Your task to perform on an android device: find photos in the google photos app Image 0: 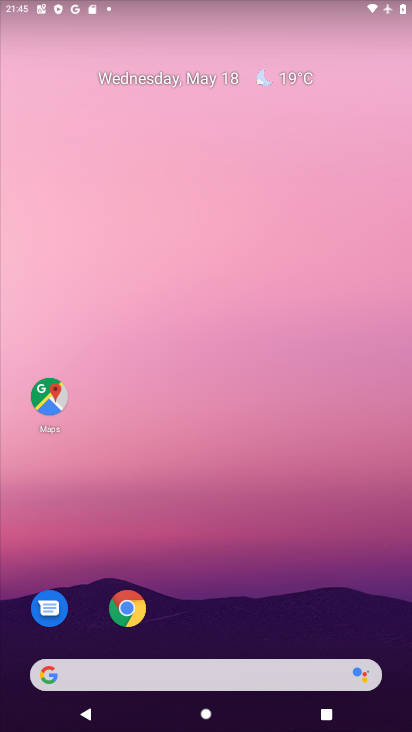
Step 0: drag from (303, 611) to (272, 129)
Your task to perform on an android device: find photos in the google photos app Image 1: 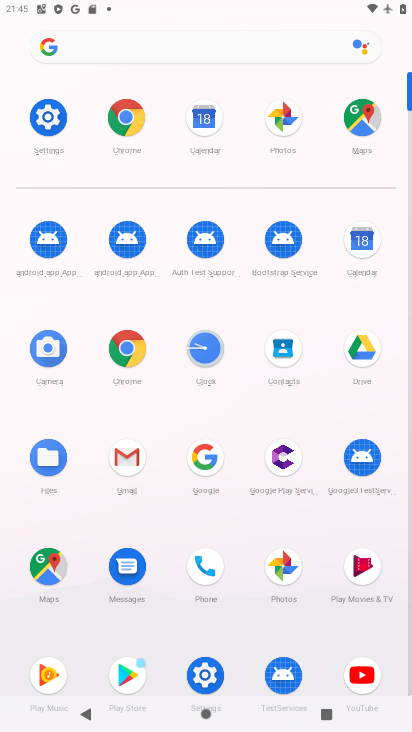
Step 1: click (286, 128)
Your task to perform on an android device: find photos in the google photos app Image 2: 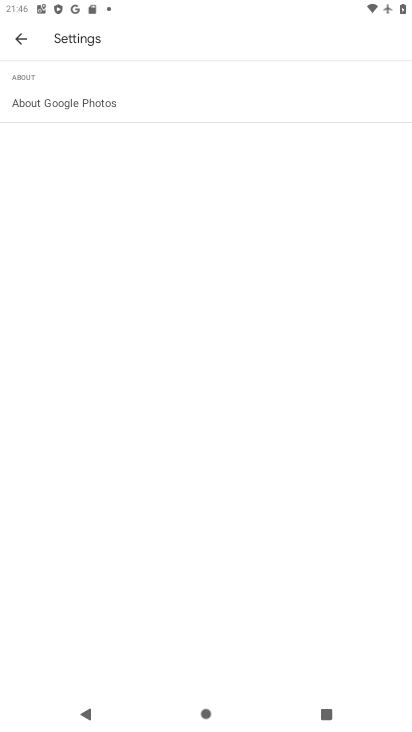
Step 2: press home button
Your task to perform on an android device: find photos in the google photos app Image 3: 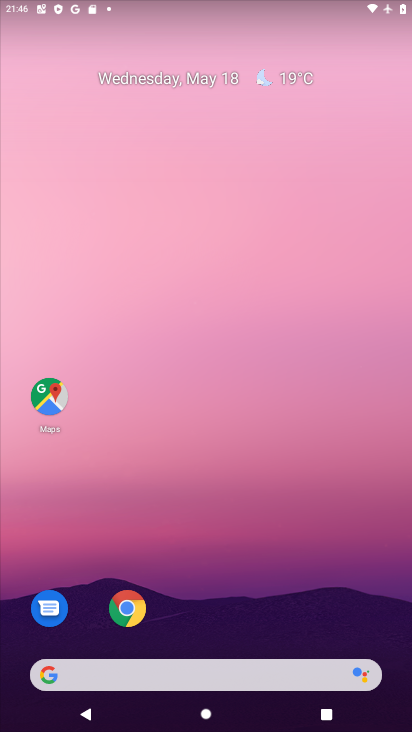
Step 3: drag from (224, 618) to (209, 0)
Your task to perform on an android device: find photos in the google photos app Image 4: 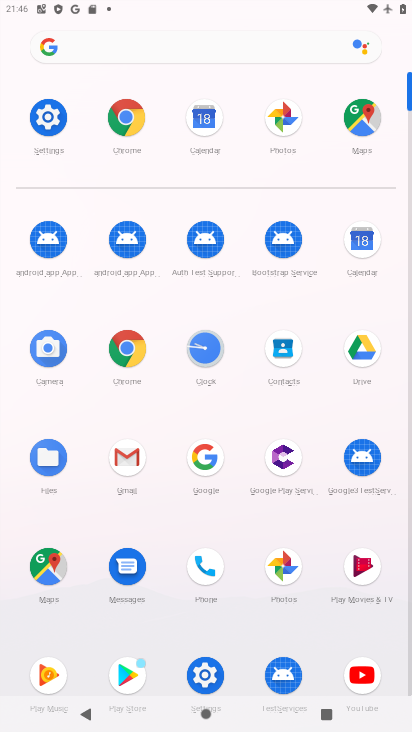
Step 4: click (291, 151)
Your task to perform on an android device: find photos in the google photos app Image 5: 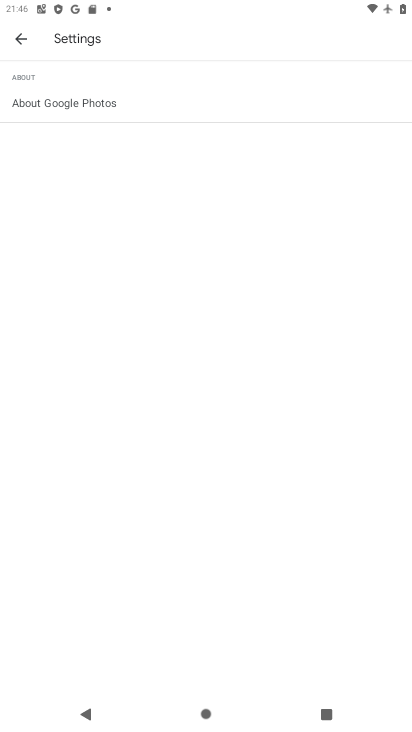
Step 5: click (29, 43)
Your task to perform on an android device: find photos in the google photos app Image 6: 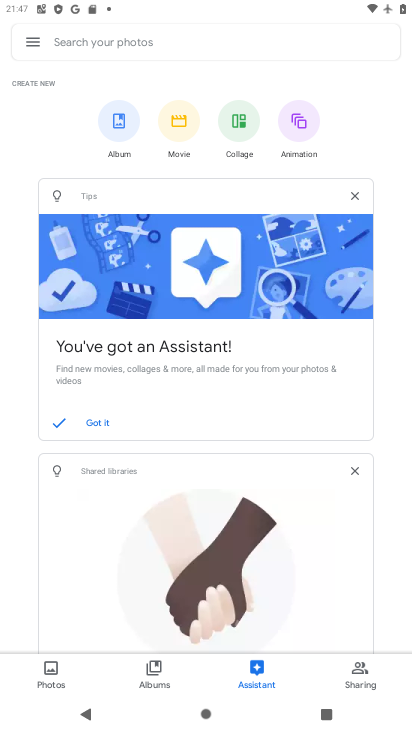
Step 6: click (156, 684)
Your task to perform on an android device: find photos in the google photos app Image 7: 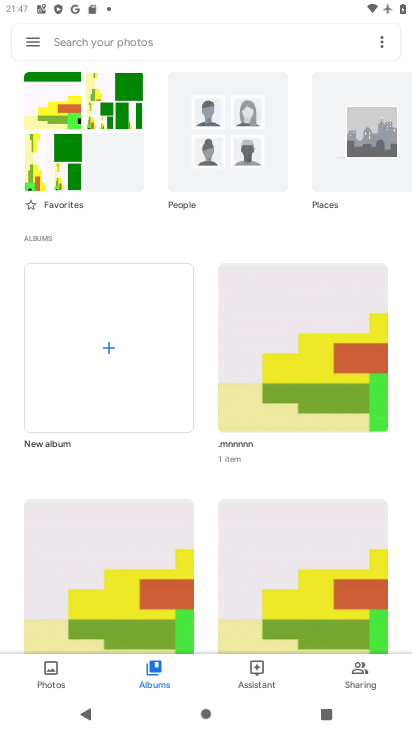
Step 7: click (32, 39)
Your task to perform on an android device: find photos in the google photos app Image 8: 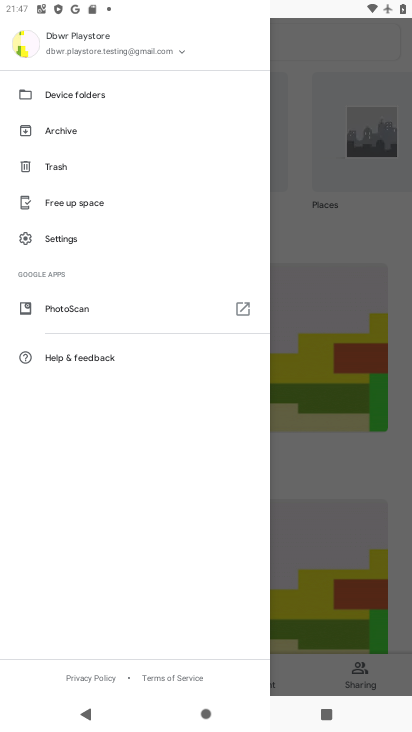
Step 8: click (82, 122)
Your task to perform on an android device: find photos in the google photos app Image 9: 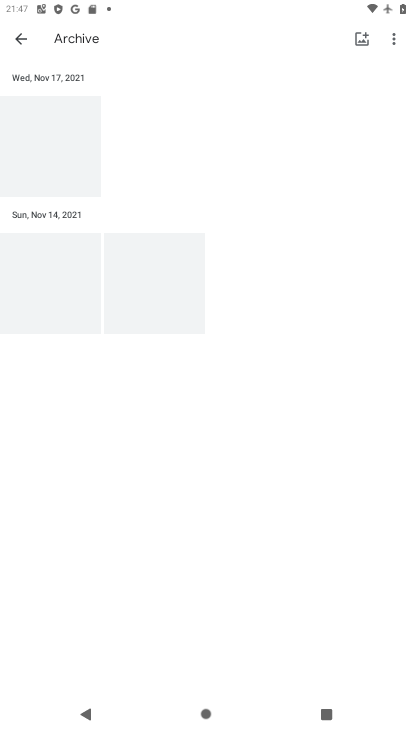
Step 9: task complete